Your task to perform on an android device: turn smart compose on in the gmail app Image 0: 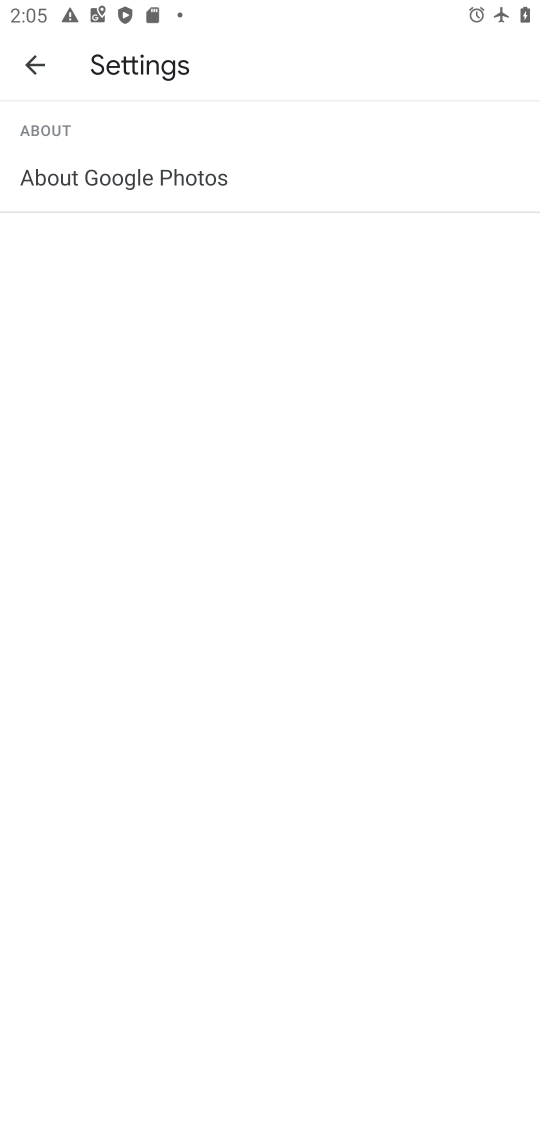
Step 0: press home button
Your task to perform on an android device: turn smart compose on in the gmail app Image 1: 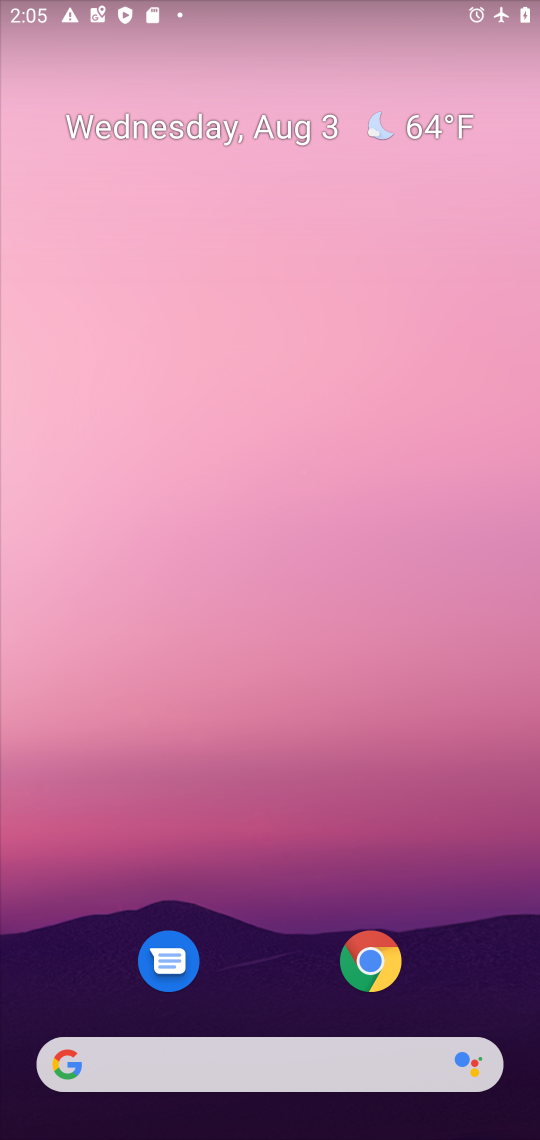
Step 1: drag from (282, 889) to (273, 149)
Your task to perform on an android device: turn smart compose on in the gmail app Image 2: 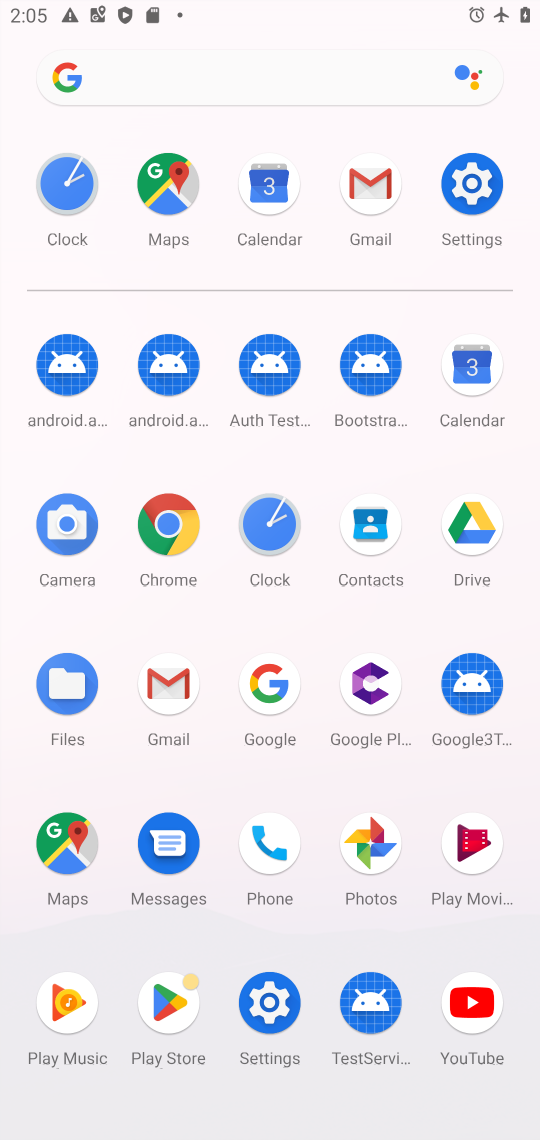
Step 2: click (372, 192)
Your task to perform on an android device: turn smart compose on in the gmail app Image 3: 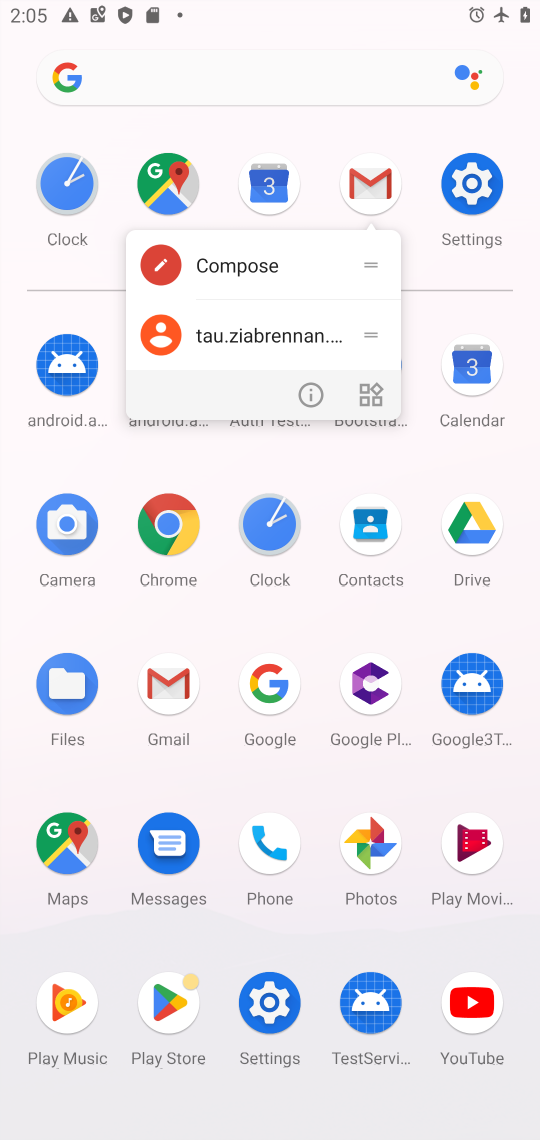
Step 3: click (372, 191)
Your task to perform on an android device: turn smart compose on in the gmail app Image 4: 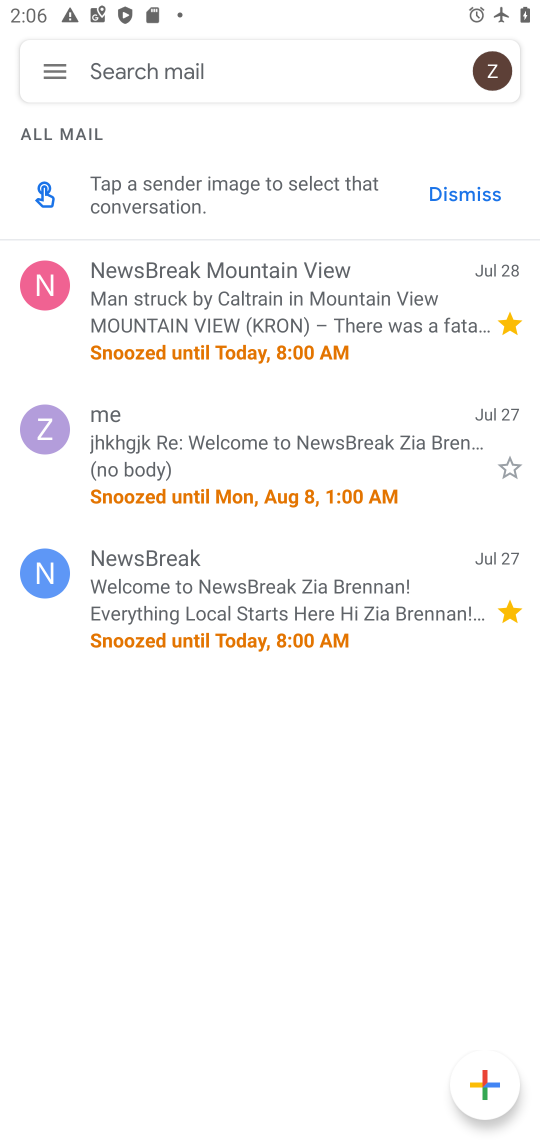
Step 4: click (51, 71)
Your task to perform on an android device: turn smart compose on in the gmail app Image 5: 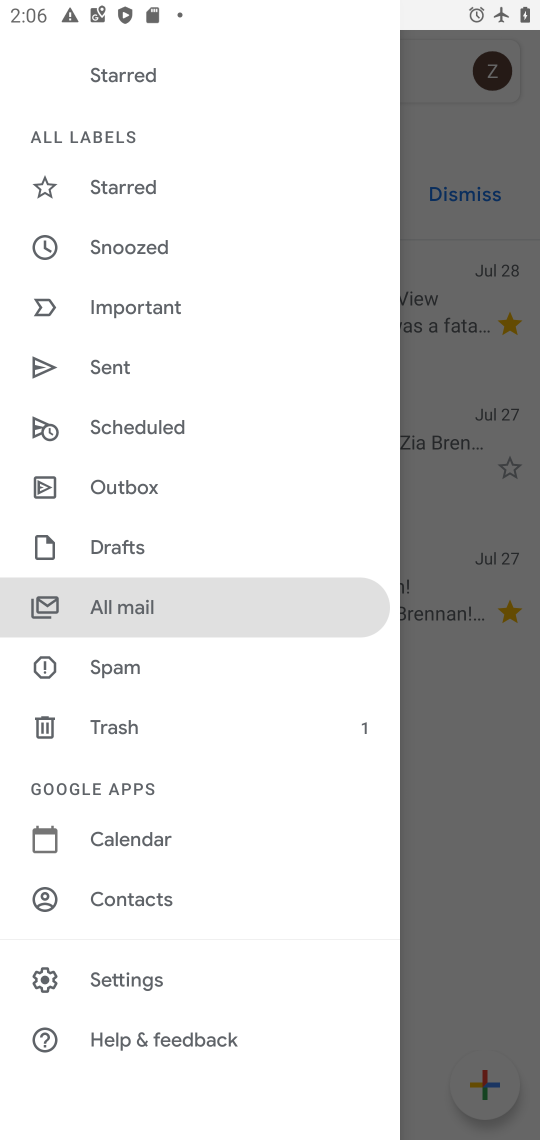
Step 5: click (117, 985)
Your task to perform on an android device: turn smart compose on in the gmail app Image 6: 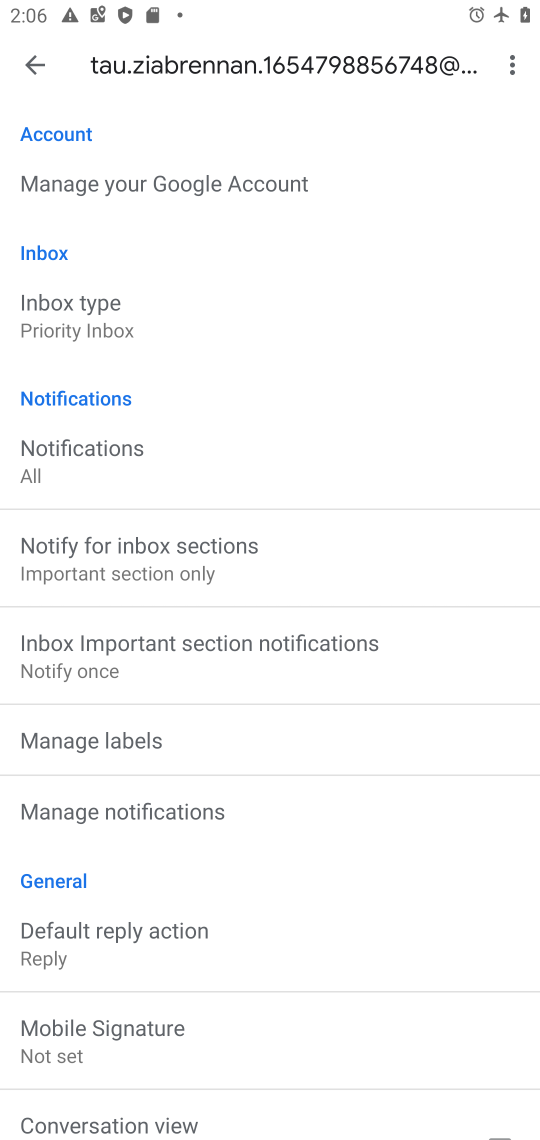
Step 6: task complete